Your task to perform on an android device: star an email in the gmail app Image 0: 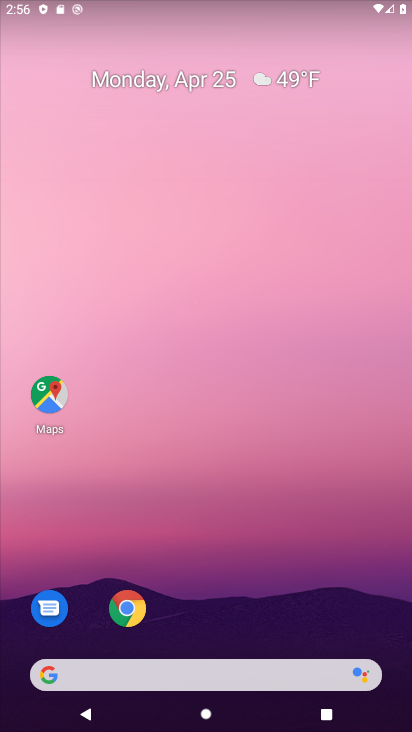
Step 0: drag from (202, 692) to (195, 242)
Your task to perform on an android device: star an email in the gmail app Image 1: 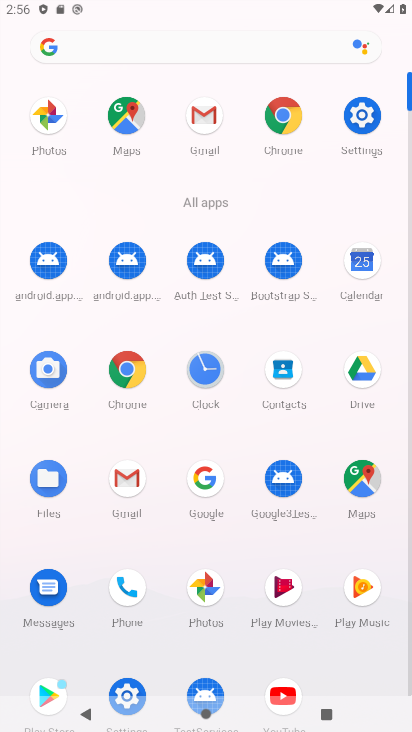
Step 1: click (123, 469)
Your task to perform on an android device: star an email in the gmail app Image 2: 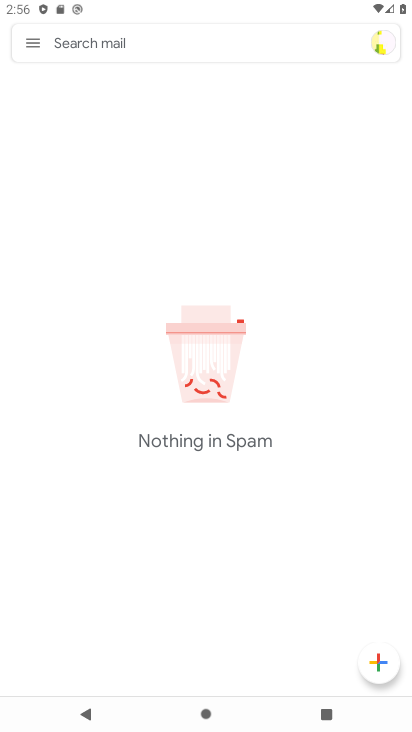
Step 2: click (32, 40)
Your task to perform on an android device: star an email in the gmail app Image 3: 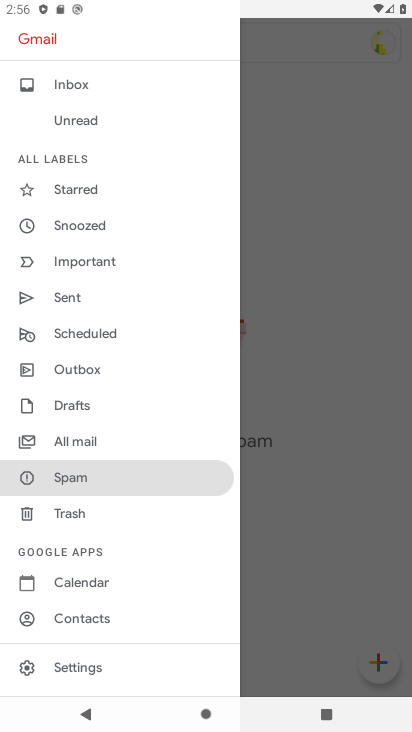
Step 3: click (74, 436)
Your task to perform on an android device: star an email in the gmail app Image 4: 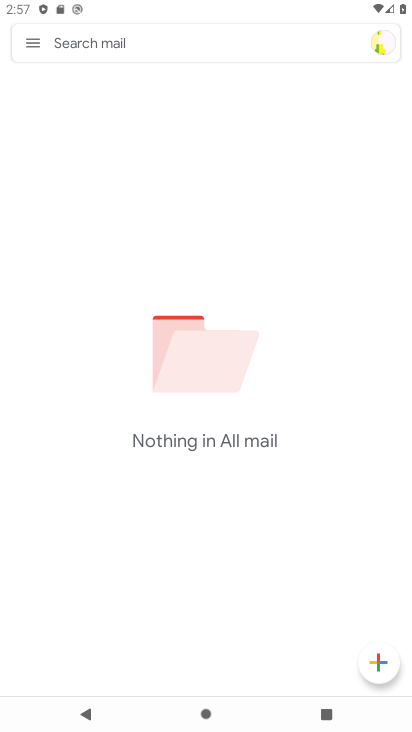
Step 4: task complete